Your task to perform on an android device: Open Youtube and go to the subscriptions tab Image 0: 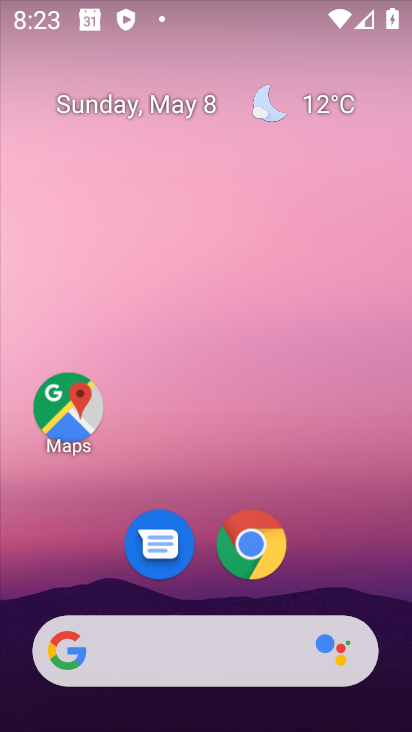
Step 0: drag from (347, 554) to (152, 0)
Your task to perform on an android device: Open Youtube and go to the subscriptions tab Image 1: 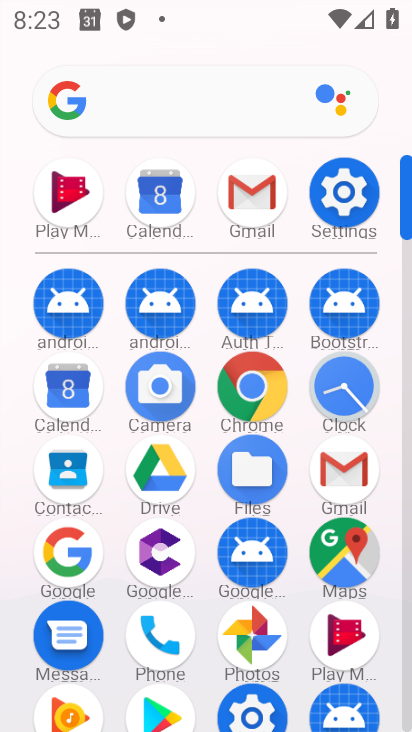
Step 1: click (406, 654)
Your task to perform on an android device: Open Youtube and go to the subscriptions tab Image 2: 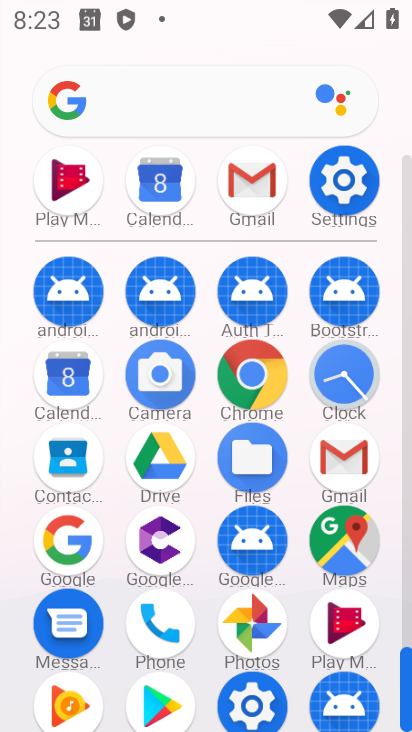
Step 2: click (406, 654)
Your task to perform on an android device: Open Youtube and go to the subscriptions tab Image 3: 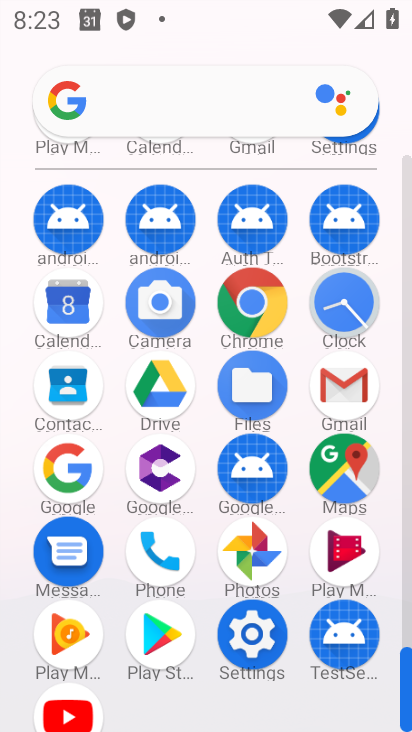
Step 3: click (67, 716)
Your task to perform on an android device: Open Youtube and go to the subscriptions tab Image 4: 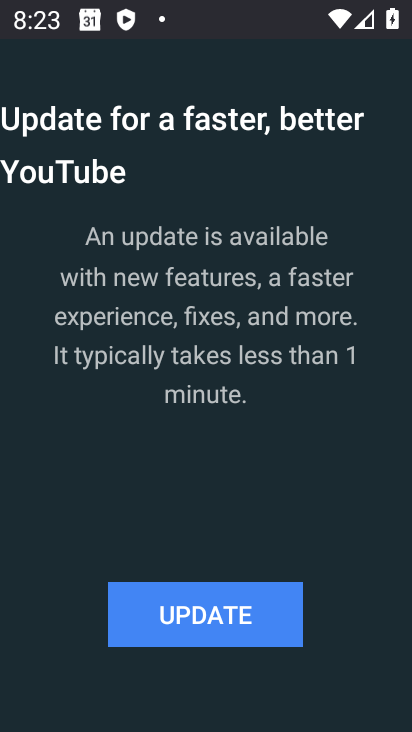
Step 4: click (196, 620)
Your task to perform on an android device: Open Youtube and go to the subscriptions tab Image 5: 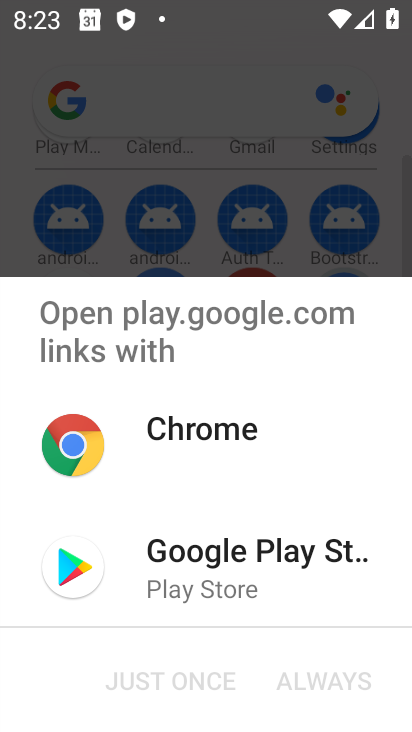
Step 5: click (189, 546)
Your task to perform on an android device: Open Youtube and go to the subscriptions tab Image 6: 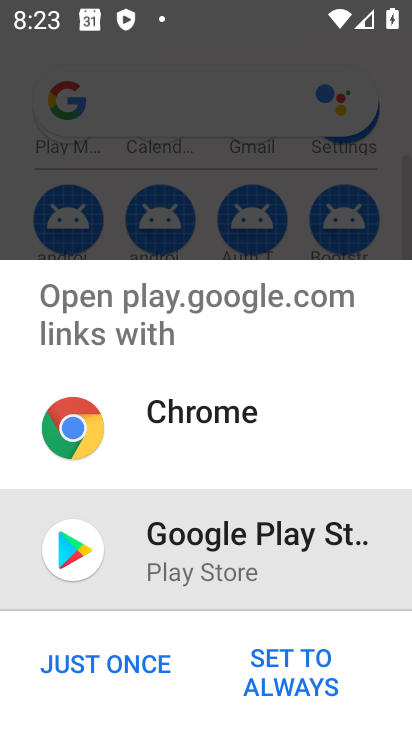
Step 6: click (148, 660)
Your task to perform on an android device: Open Youtube and go to the subscriptions tab Image 7: 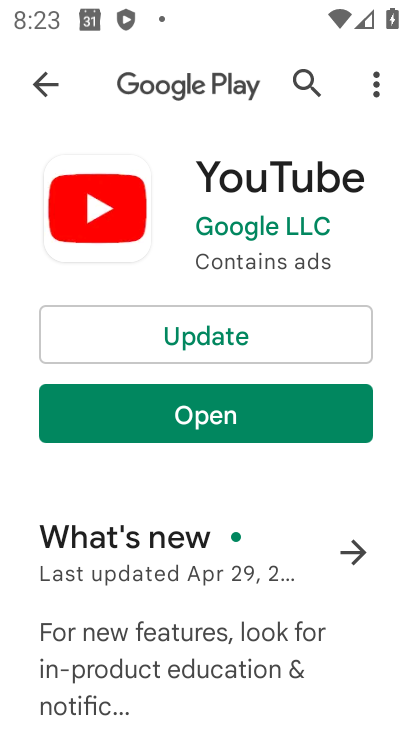
Step 7: click (207, 333)
Your task to perform on an android device: Open Youtube and go to the subscriptions tab Image 8: 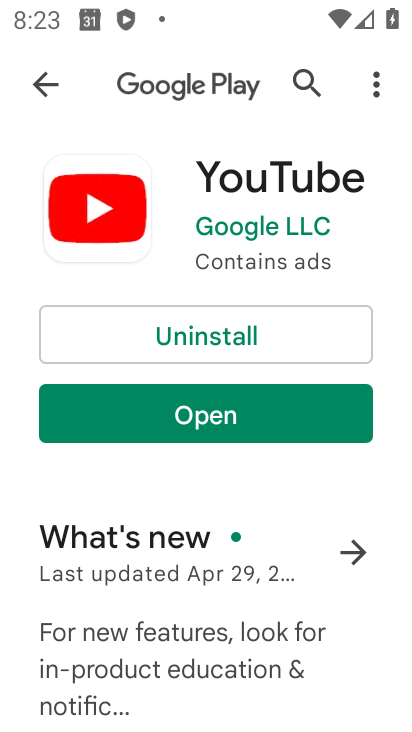
Step 8: click (207, 429)
Your task to perform on an android device: Open Youtube and go to the subscriptions tab Image 9: 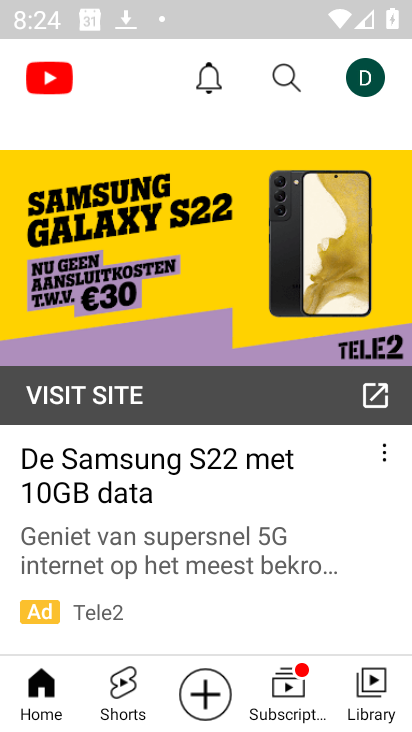
Step 9: click (283, 682)
Your task to perform on an android device: Open Youtube and go to the subscriptions tab Image 10: 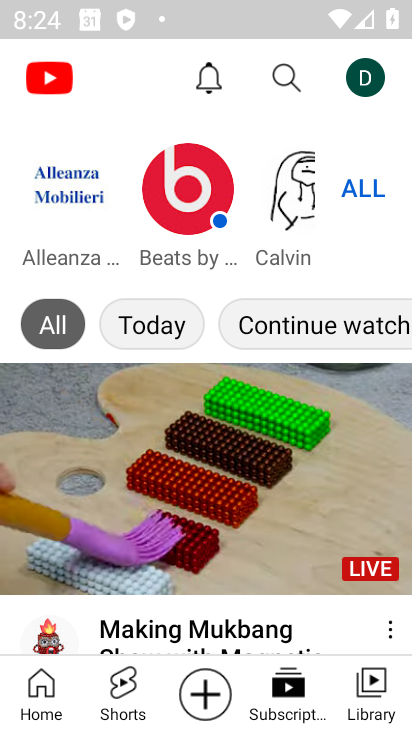
Step 10: task complete